Your task to perform on an android device: Open Android settings Image 0: 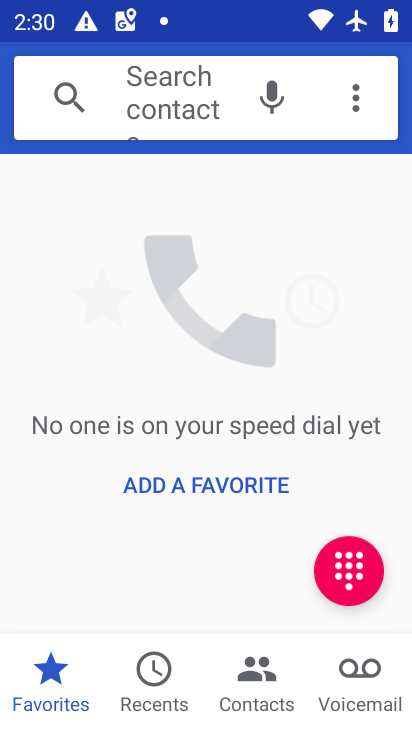
Step 0: press home button
Your task to perform on an android device: Open Android settings Image 1: 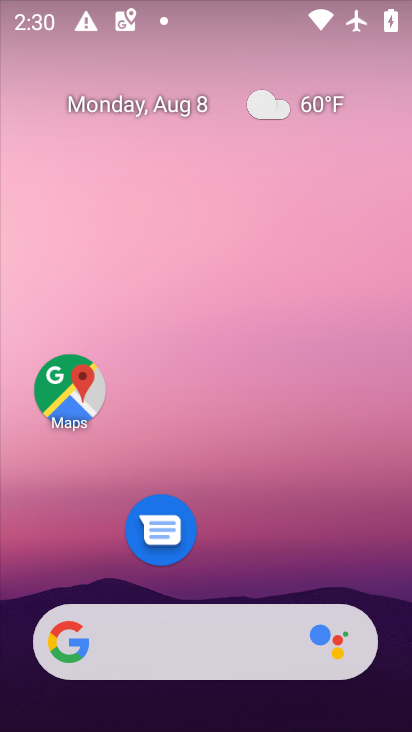
Step 1: drag from (221, 512) to (221, 65)
Your task to perform on an android device: Open Android settings Image 2: 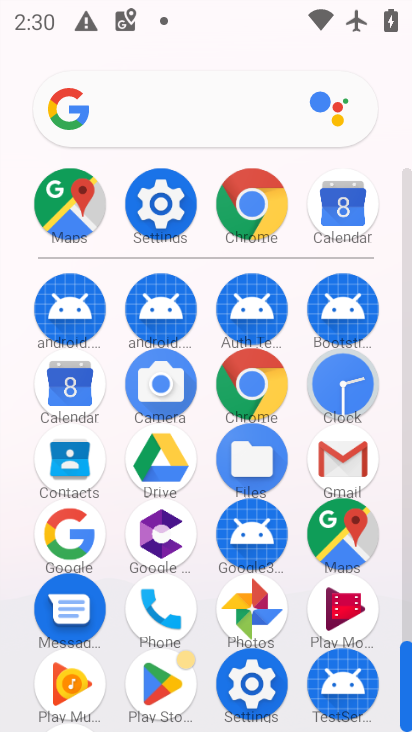
Step 2: click (157, 211)
Your task to perform on an android device: Open Android settings Image 3: 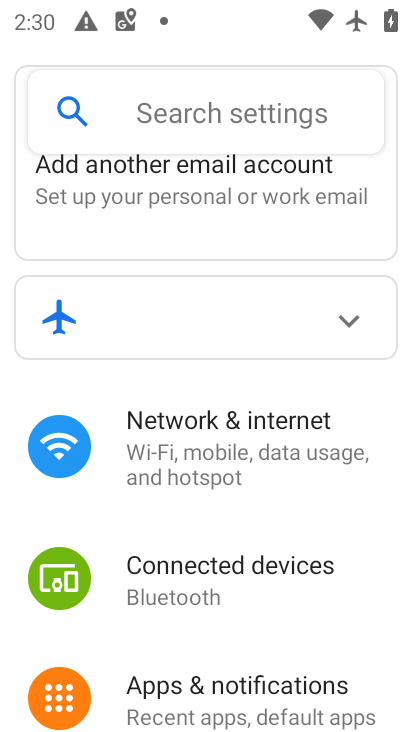
Step 3: task complete